Your task to perform on an android device: turn on wifi Image 0: 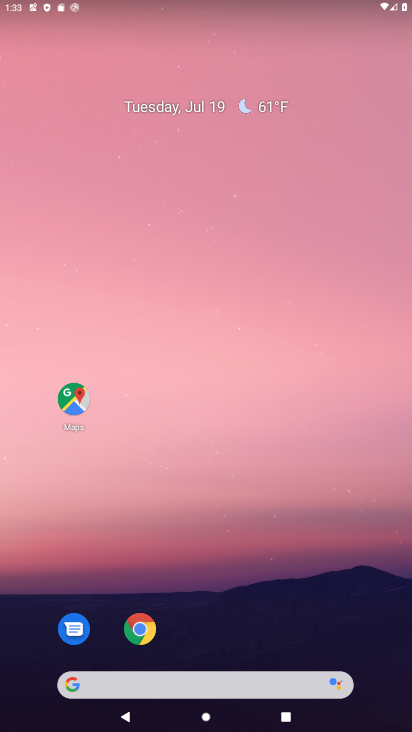
Step 0: drag from (184, 543) to (171, 171)
Your task to perform on an android device: turn on wifi Image 1: 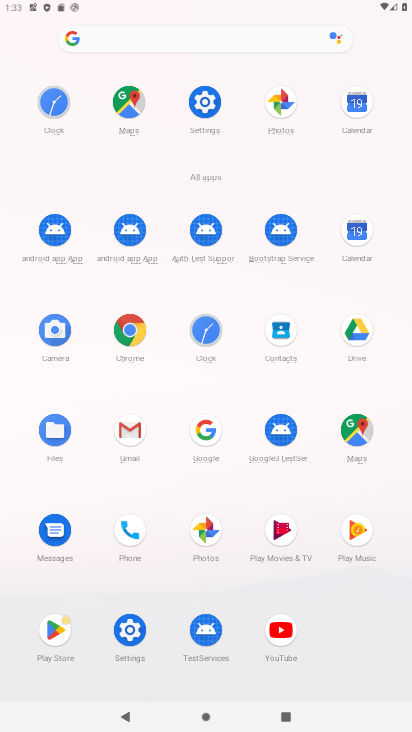
Step 1: click (206, 104)
Your task to perform on an android device: turn on wifi Image 2: 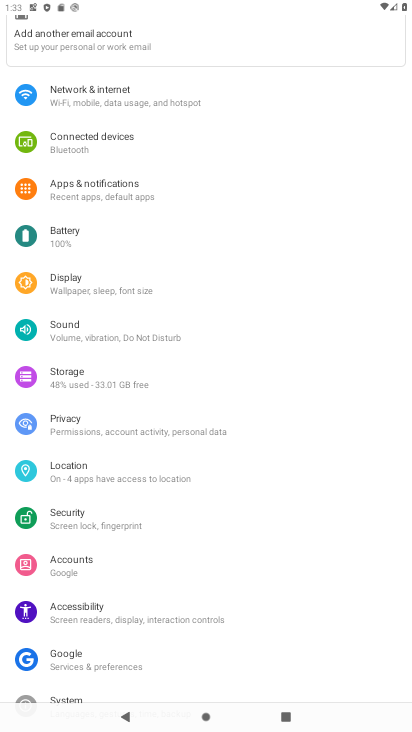
Step 2: click (106, 102)
Your task to perform on an android device: turn on wifi Image 3: 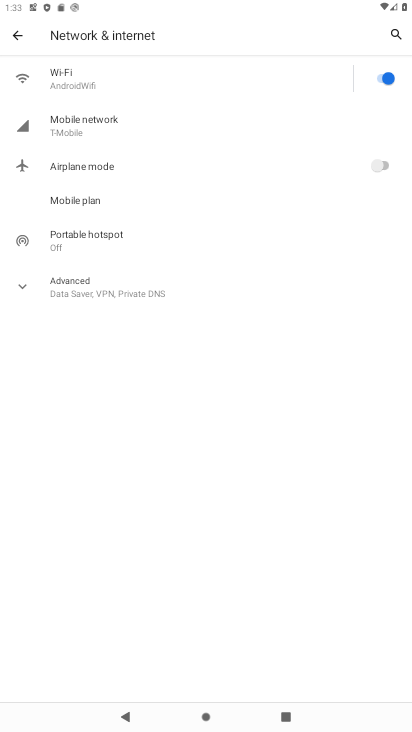
Step 3: task complete